Your task to perform on an android device: toggle translation in the chrome app Image 0: 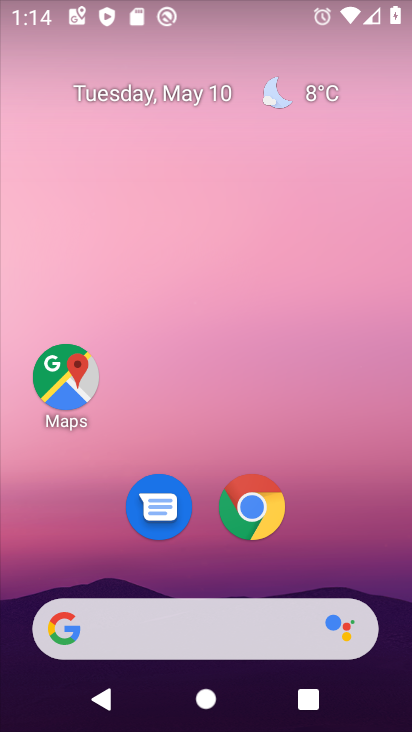
Step 0: click (249, 510)
Your task to perform on an android device: toggle translation in the chrome app Image 1: 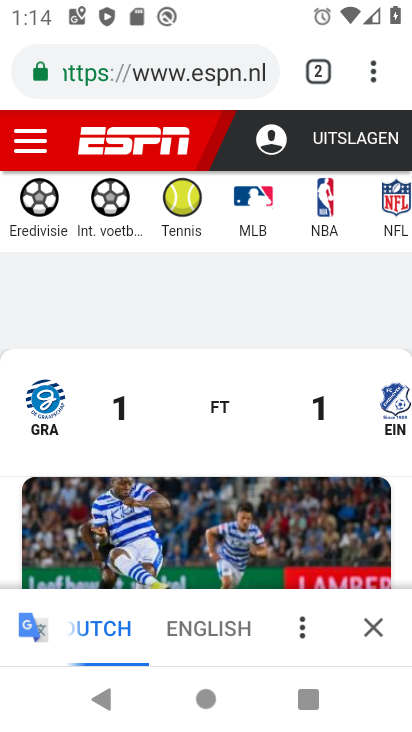
Step 1: click (375, 78)
Your task to perform on an android device: toggle translation in the chrome app Image 2: 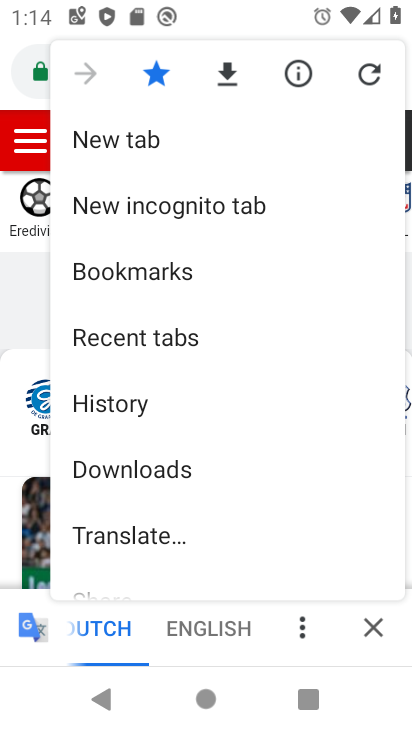
Step 2: drag from (108, 570) to (126, 201)
Your task to perform on an android device: toggle translation in the chrome app Image 3: 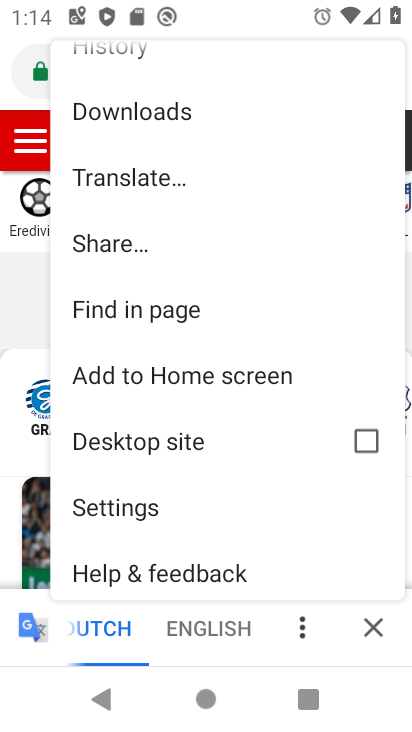
Step 3: click (125, 505)
Your task to perform on an android device: toggle translation in the chrome app Image 4: 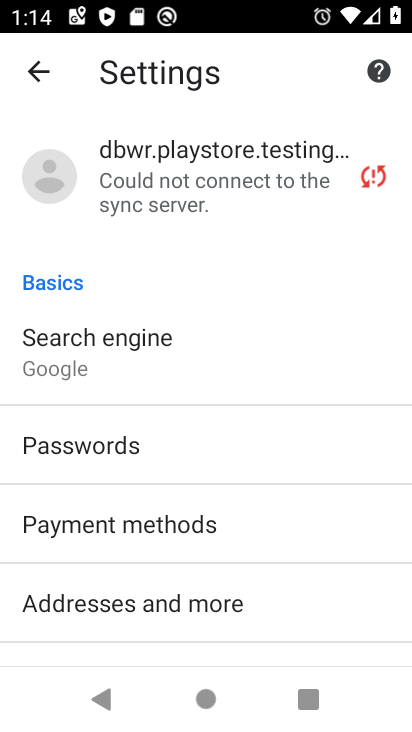
Step 4: drag from (174, 632) to (175, 352)
Your task to perform on an android device: toggle translation in the chrome app Image 5: 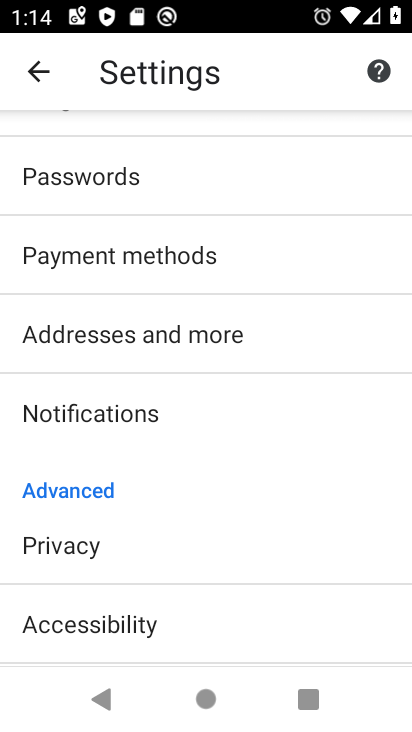
Step 5: drag from (141, 628) to (146, 347)
Your task to perform on an android device: toggle translation in the chrome app Image 6: 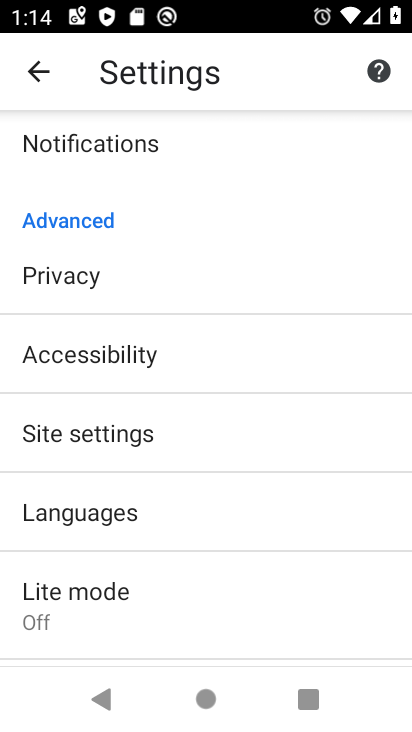
Step 6: drag from (123, 630) to (126, 316)
Your task to perform on an android device: toggle translation in the chrome app Image 7: 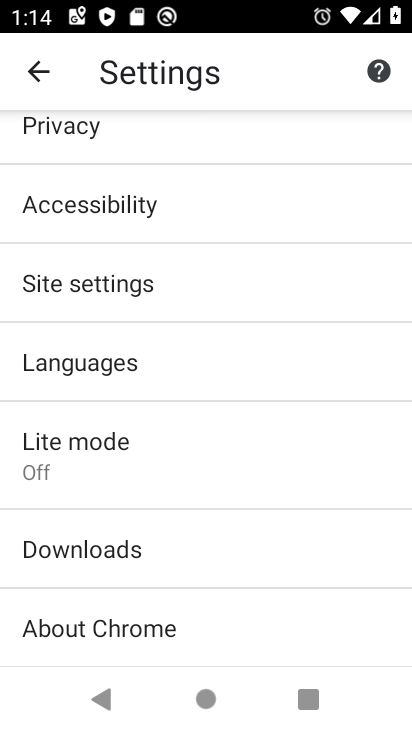
Step 7: click (89, 360)
Your task to perform on an android device: toggle translation in the chrome app Image 8: 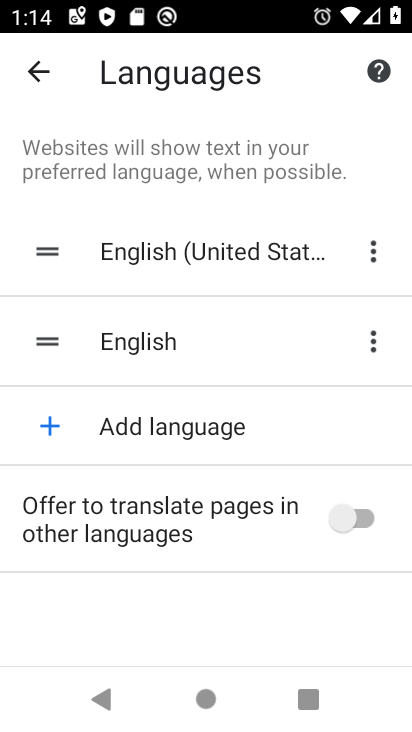
Step 8: click (358, 519)
Your task to perform on an android device: toggle translation in the chrome app Image 9: 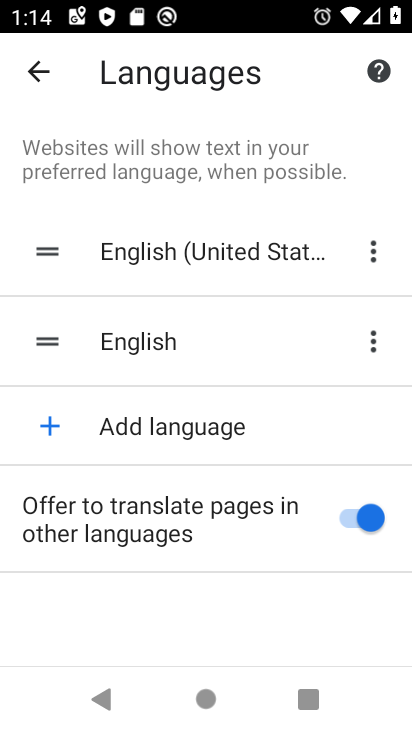
Step 9: task complete